Your task to perform on an android device: Show me the alarms in the clock app Image 0: 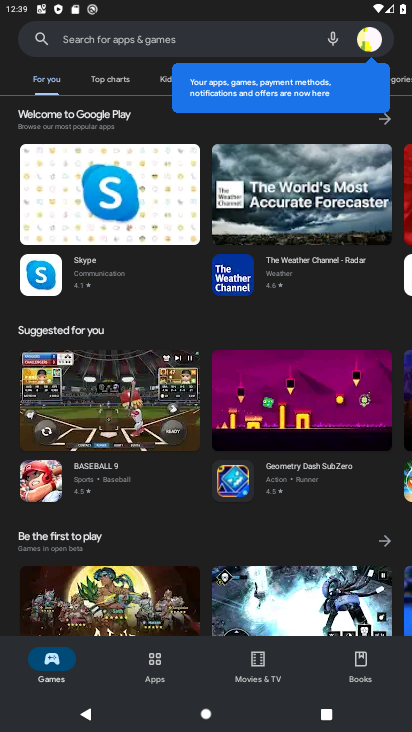
Step 0: press home button
Your task to perform on an android device: Show me the alarms in the clock app Image 1: 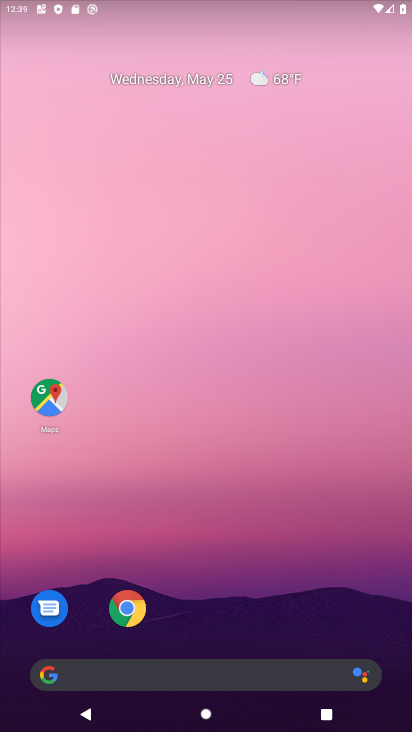
Step 1: drag from (174, 478) to (98, 6)
Your task to perform on an android device: Show me the alarms in the clock app Image 2: 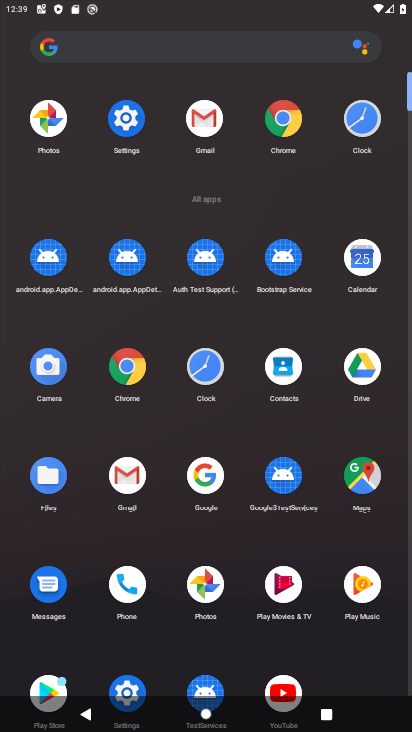
Step 2: click (277, 362)
Your task to perform on an android device: Show me the alarms in the clock app Image 3: 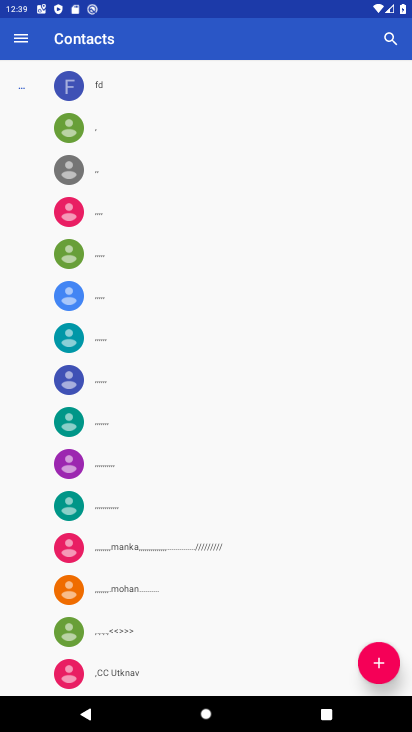
Step 3: press back button
Your task to perform on an android device: Show me the alarms in the clock app Image 4: 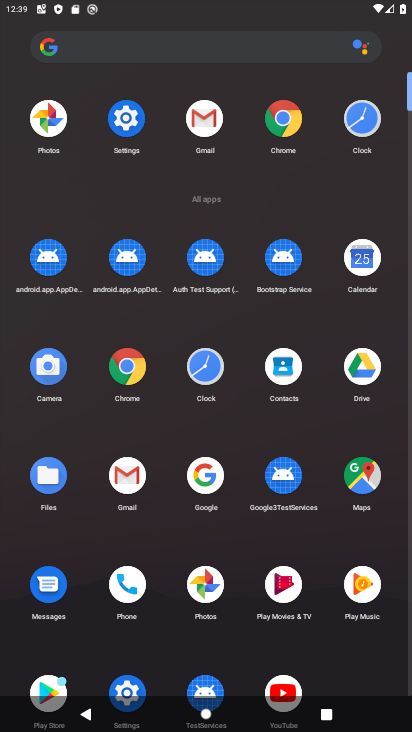
Step 4: click (200, 343)
Your task to perform on an android device: Show me the alarms in the clock app Image 5: 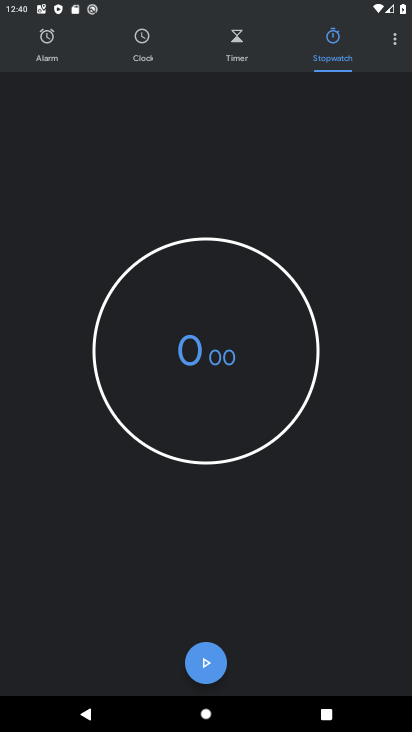
Step 5: click (200, 343)
Your task to perform on an android device: Show me the alarms in the clock app Image 6: 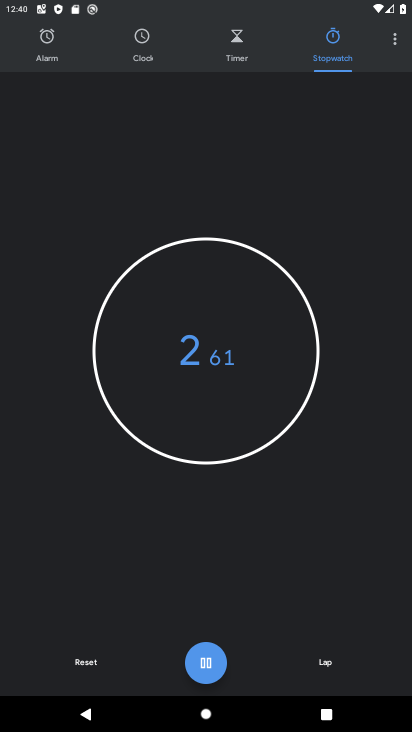
Step 6: click (44, 34)
Your task to perform on an android device: Show me the alarms in the clock app Image 7: 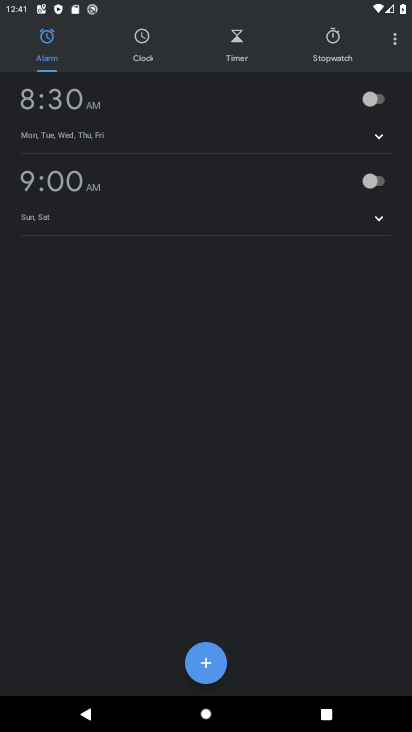
Step 7: task complete